Your task to perform on an android device: Open Chrome and go to the settings page Image 0: 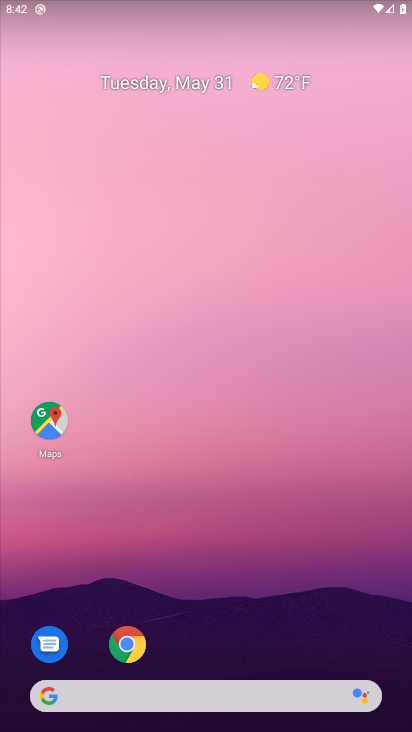
Step 0: press home button
Your task to perform on an android device: Open Chrome and go to the settings page Image 1: 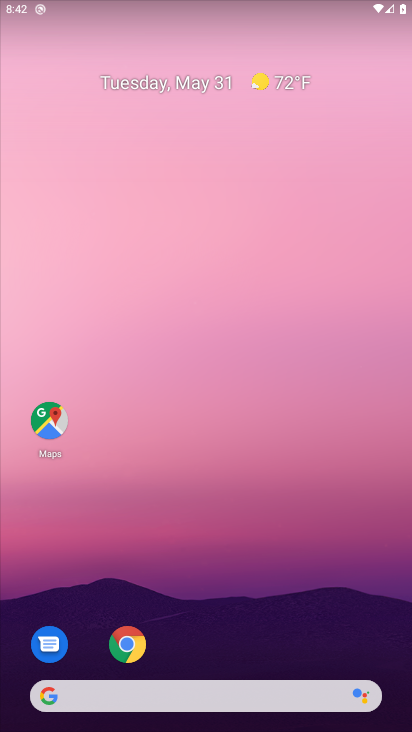
Step 1: click (124, 642)
Your task to perform on an android device: Open Chrome and go to the settings page Image 2: 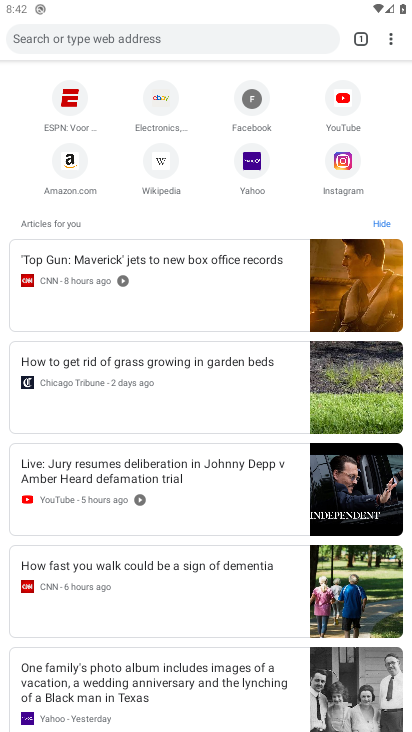
Step 2: click (392, 40)
Your task to perform on an android device: Open Chrome and go to the settings page Image 3: 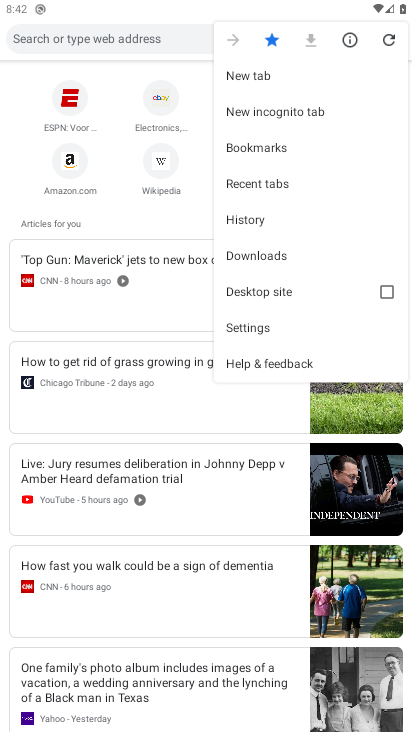
Step 3: click (278, 327)
Your task to perform on an android device: Open Chrome and go to the settings page Image 4: 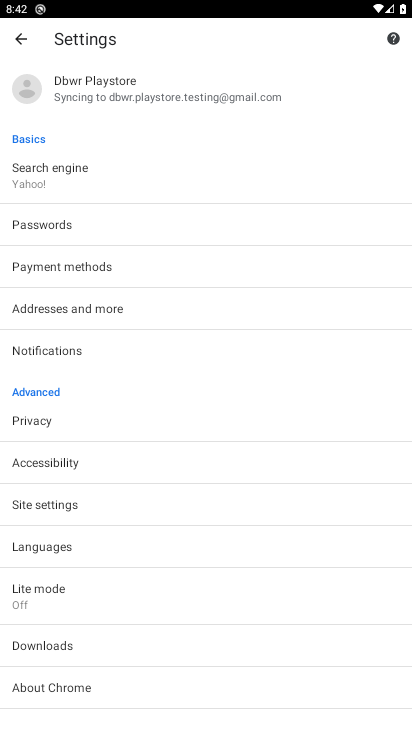
Step 4: click (152, 215)
Your task to perform on an android device: Open Chrome and go to the settings page Image 5: 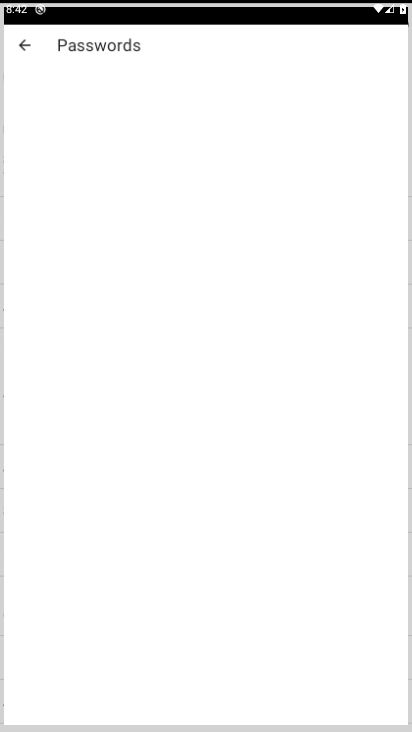
Step 5: task complete